Your task to perform on an android device: Show me popular games on the Play Store Image 0: 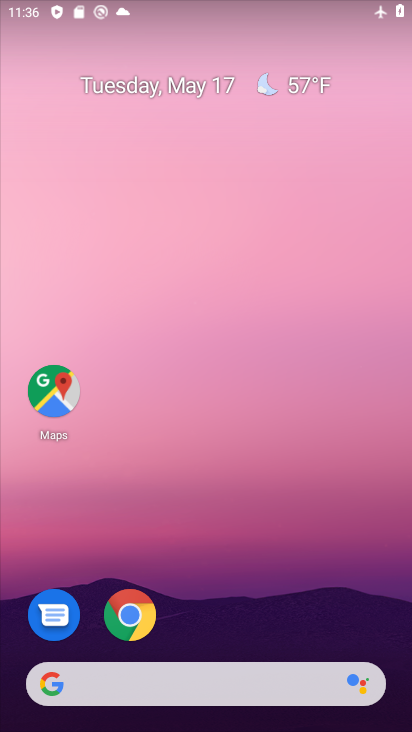
Step 0: drag from (368, 611) to (263, 30)
Your task to perform on an android device: Show me popular games on the Play Store Image 1: 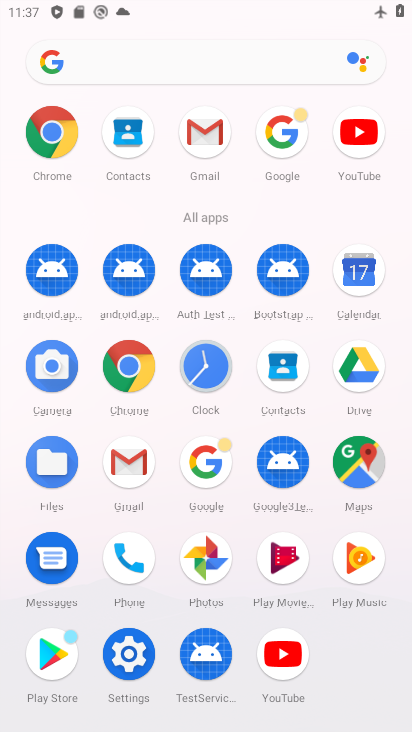
Step 1: click (65, 649)
Your task to perform on an android device: Show me popular games on the Play Store Image 2: 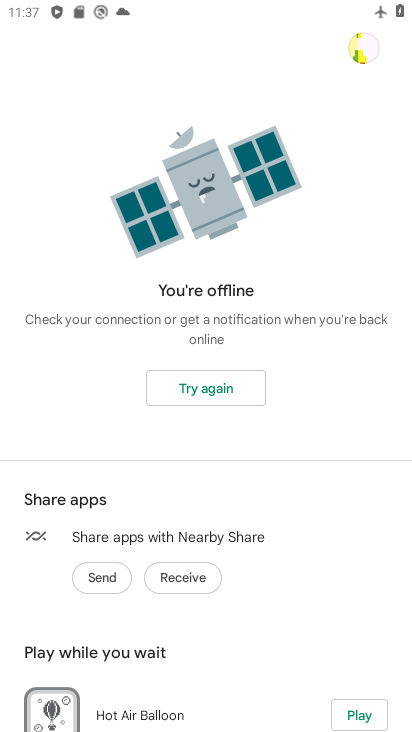
Step 2: task complete